Your task to perform on an android device: Open Android settings Image 0: 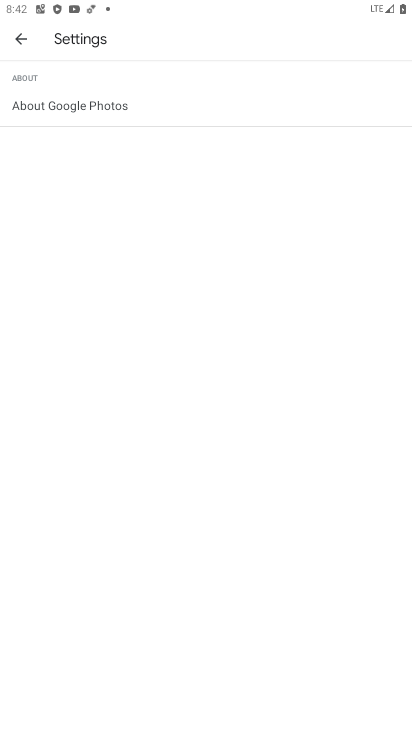
Step 0: press home button
Your task to perform on an android device: Open Android settings Image 1: 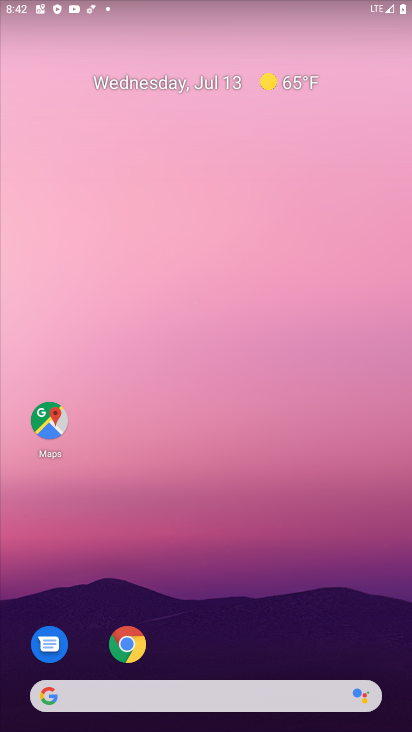
Step 1: drag from (335, 558) to (249, 22)
Your task to perform on an android device: Open Android settings Image 2: 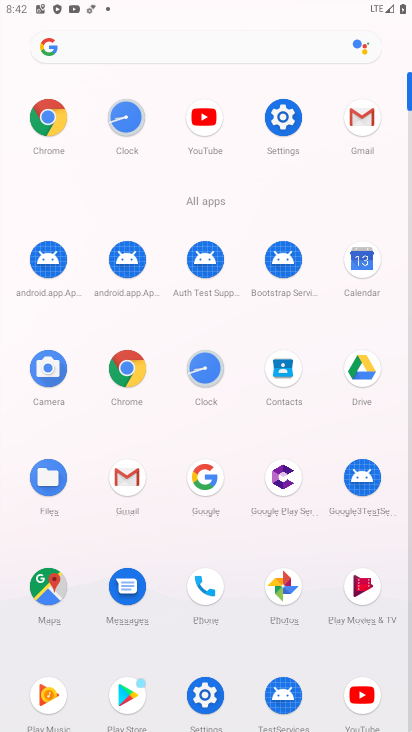
Step 2: click (274, 125)
Your task to perform on an android device: Open Android settings Image 3: 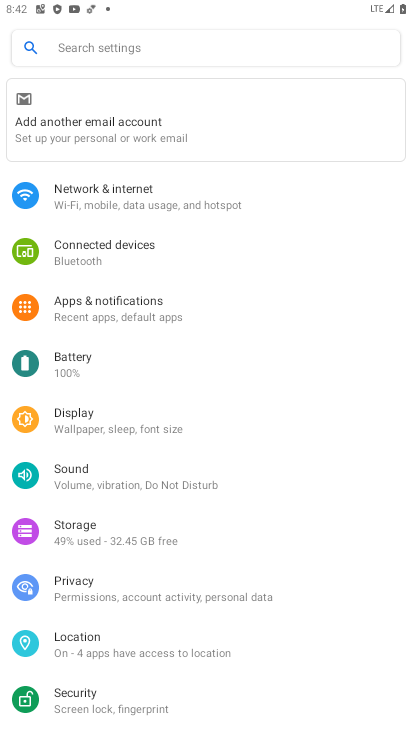
Step 3: task complete